Your task to perform on an android device: Toggle the flashlight Image 0: 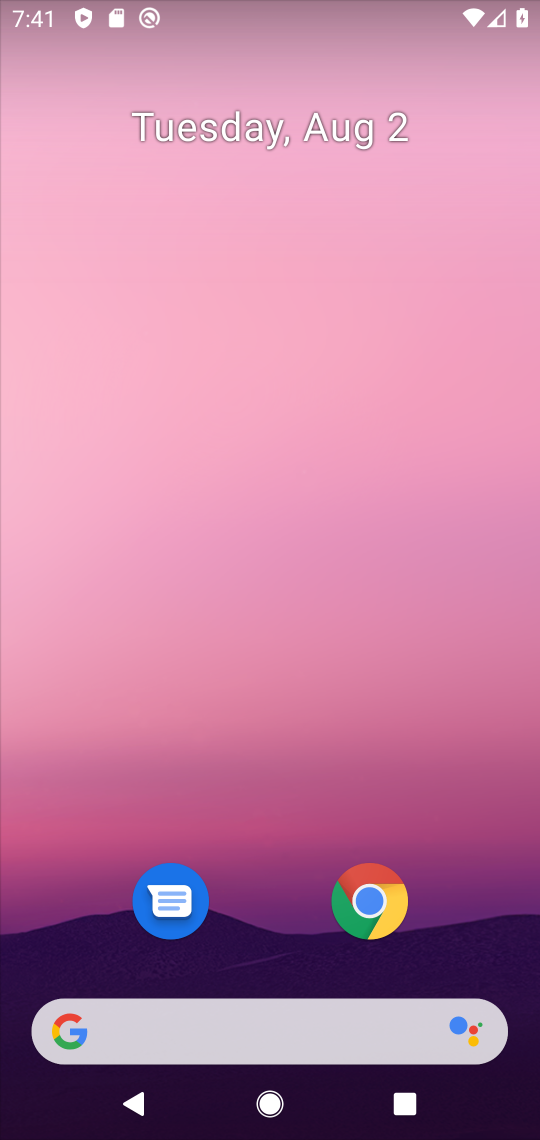
Step 0: drag from (480, 951) to (323, 128)
Your task to perform on an android device: Toggle the flashlight Image 1: 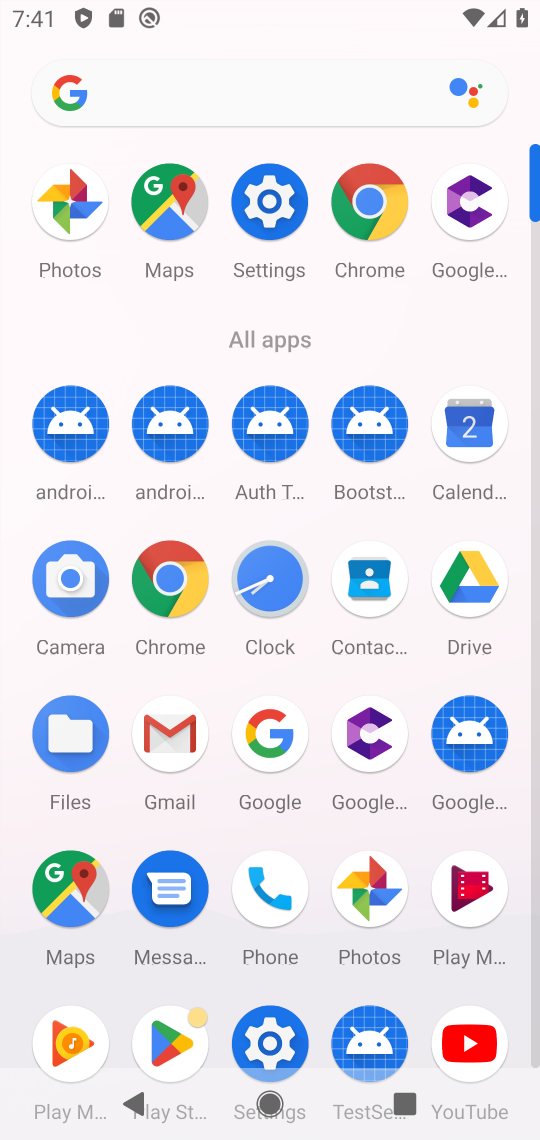
Step 1: drag from (333, 12) to (423, 562)
Your task to perform on an android device: Toggle the flashlight Image 2: 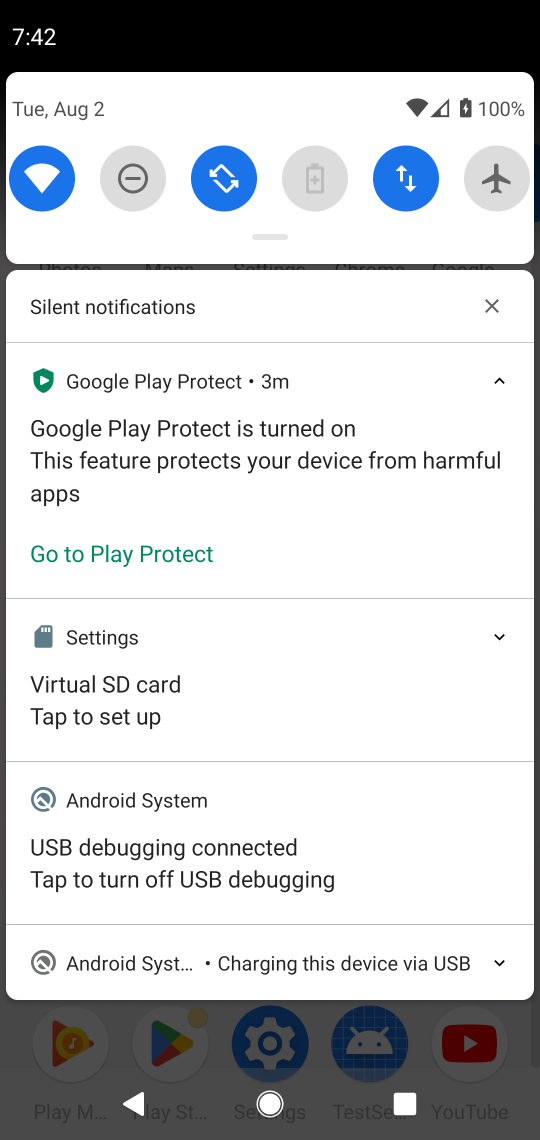
Step 2: drag from (273, 222) to (223, 859)
Your task to perform on an android device: Toggle the flashlight Image 3: 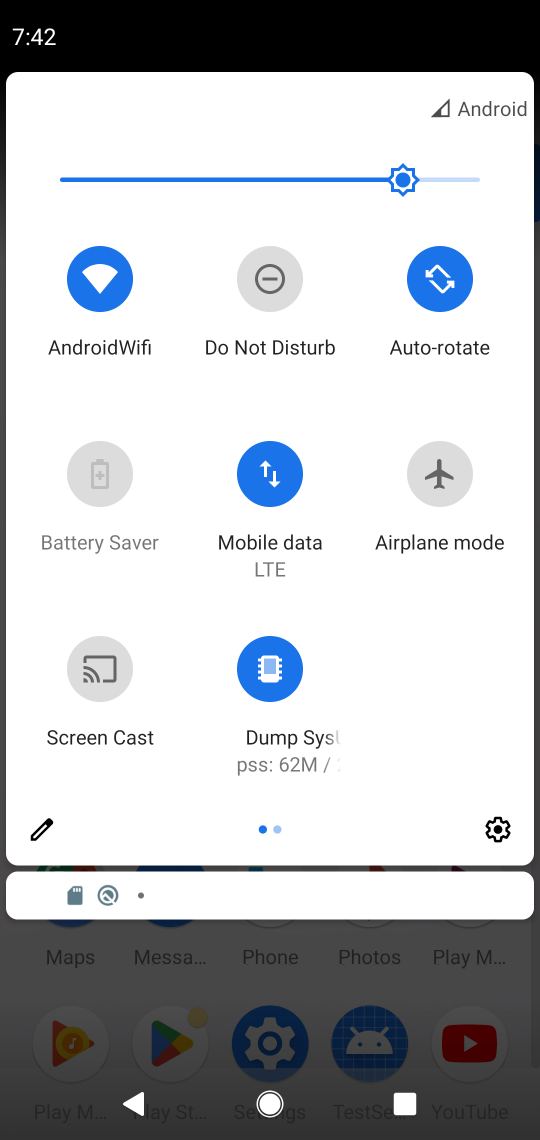
Step 3: click (58, 819)
Your task to perform on an android device: Toggle the flashlight Image 4: 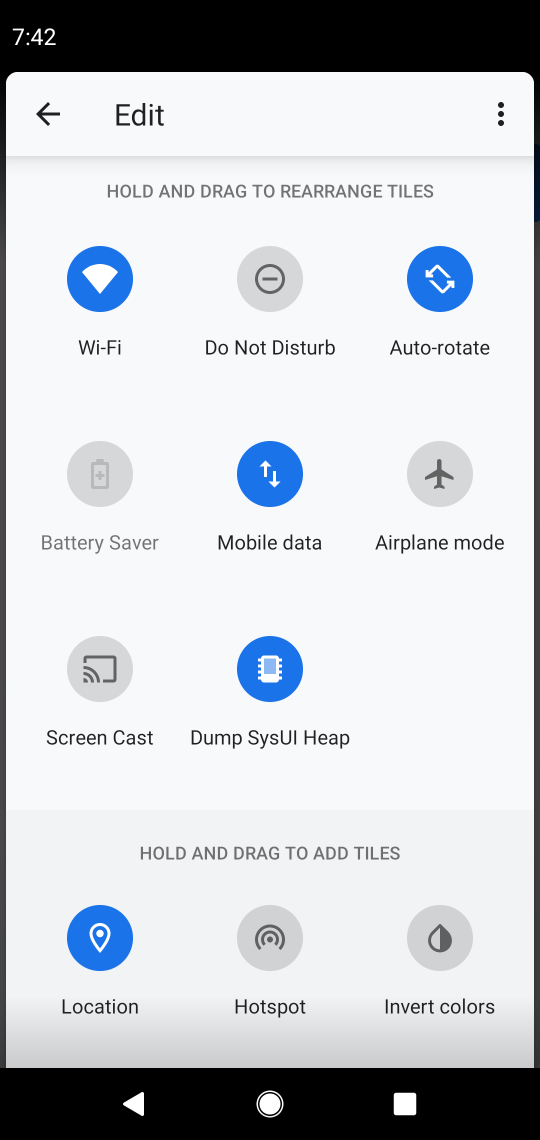
Step 4: task complete